Your task to perform on an android device: allow cookies in the chrome app Image 0: 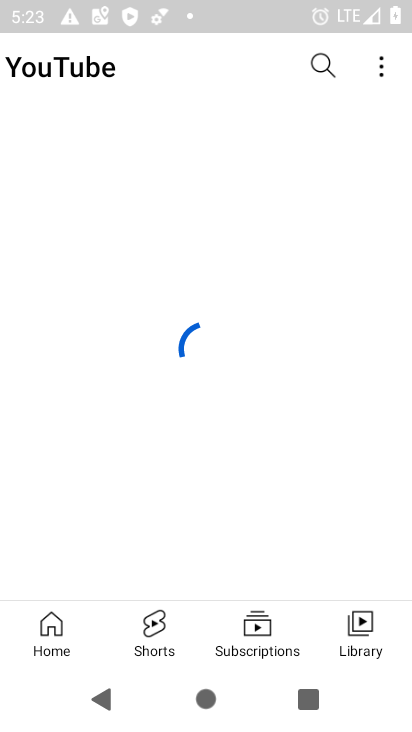
Step 0: press home button
Your task to perform on an android device: allow cookies in the chrome app Image 1: 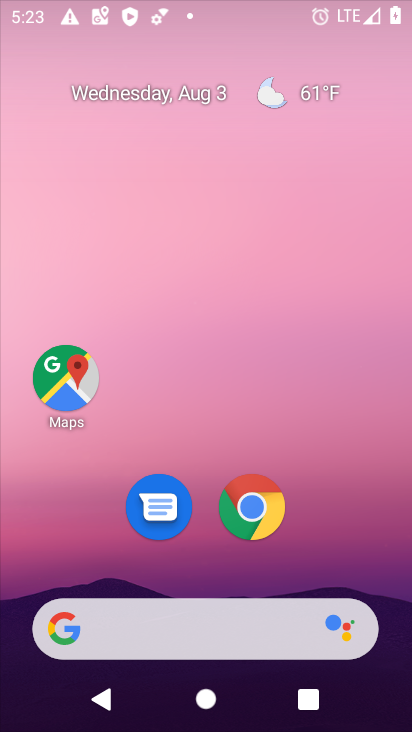
Step 1: drag from (329, 373) to (329, 104)
Your task to perform on an android device: allow cookies in the chrome app Image 2: 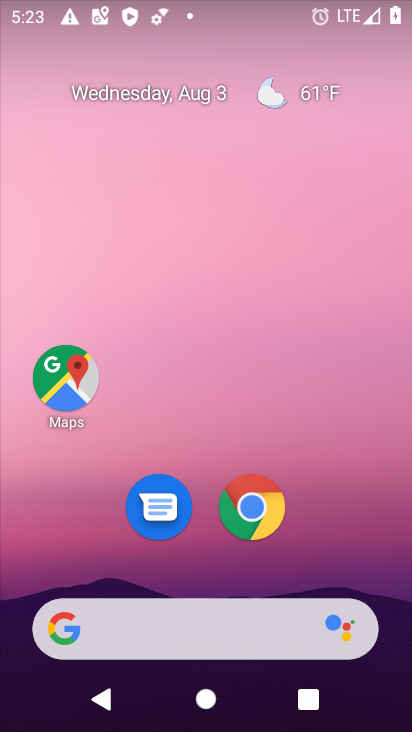
Step 2: drag from (331, 513) to (326, 130)
Your task to perform on an android device: allow cookies in the chrome app Image 3: 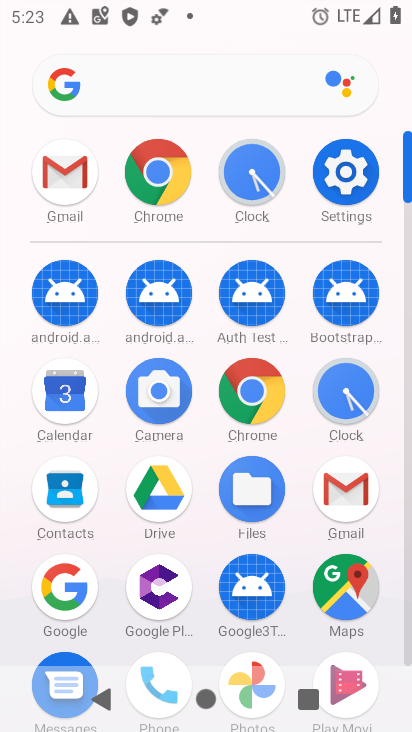
Step 3: click (252, 396)
Your task to perform on an android device: allow cookies in the chrome app Image 4: 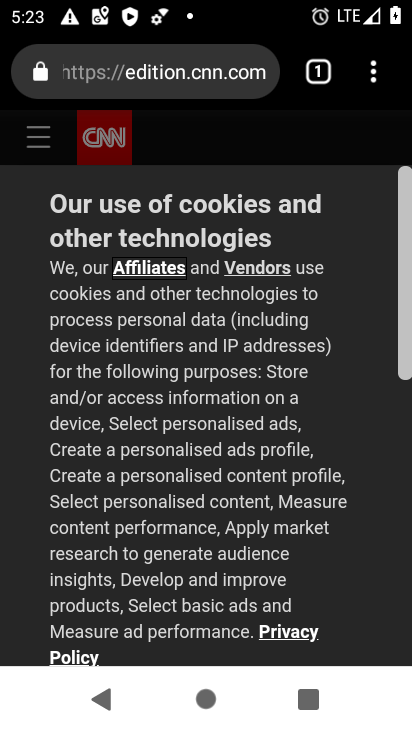
Step 4: drag from (371, 68) to (180, 507)
Your task to perform on an android device: allow cookies in the chrome app Image 5: 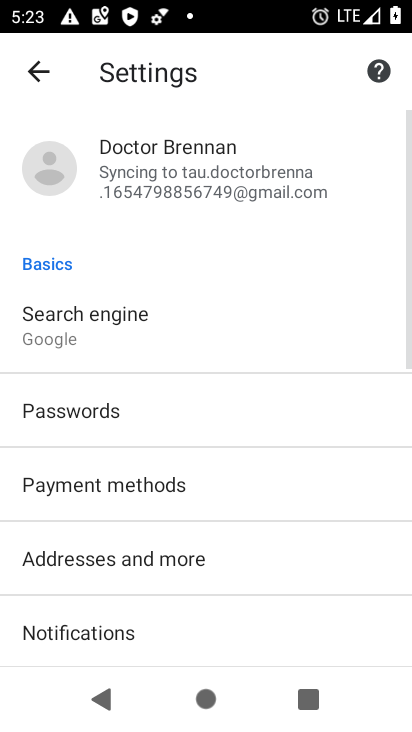
Step 5: drag from (310, 558) to (334, 165)
Your task to perform on an android device: allow cookies in the chrome app Image 6: 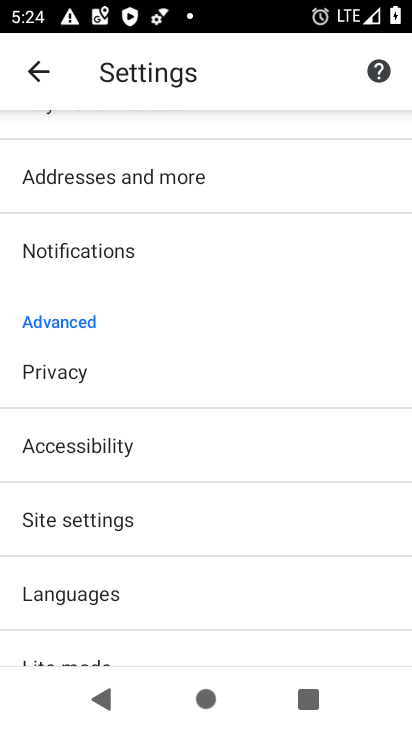
Step 6: click (119, 519)
Your task to perform on an android device: allow cookies in the chrome app Image 7: 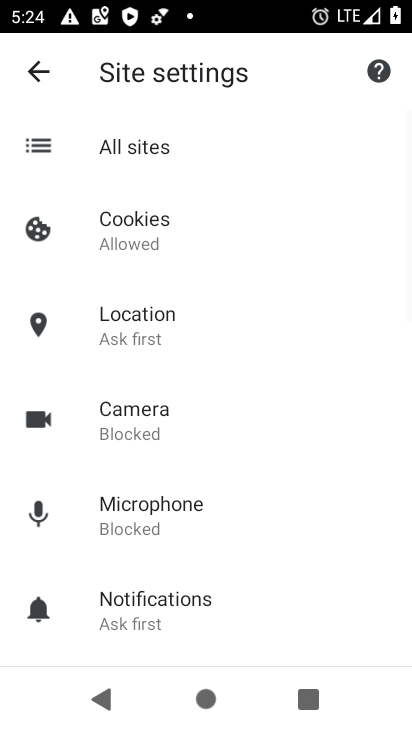
Step 7: click (208, 231)
Your task to perform on an android device: allow cookies in the chrome app Image 8: 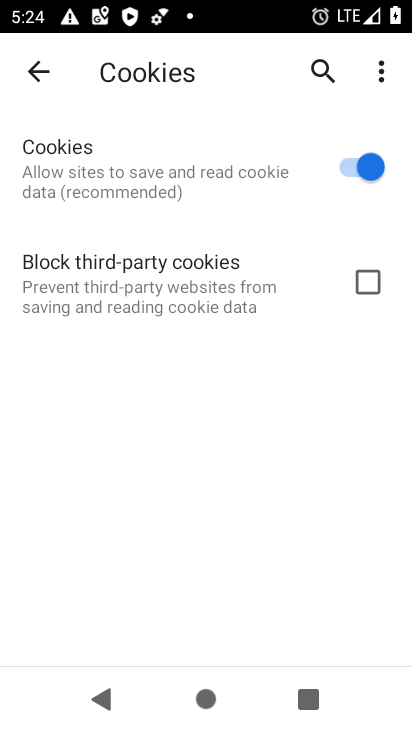
Step 8: task complete